Your task to perform on an android device: turn pop-ups off in chrome Image 0: 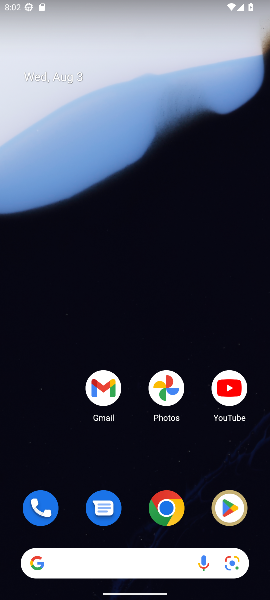
Step 0: click (171, 518)
Your task to perform on an android device: turn pop-ups off in chrome Image 1: 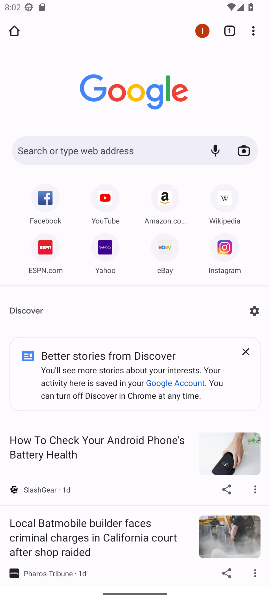
Step 1: click (253, 33)
Your task to perform on an android device: turn pop-ups off in chrome Image 2: 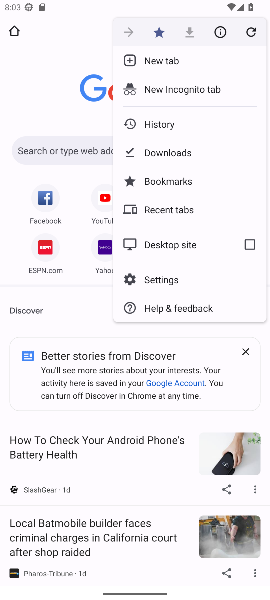
Step 2: click (162, 283)
Your task to perform on an android device: turn pop-ups off in chrome Image 3: 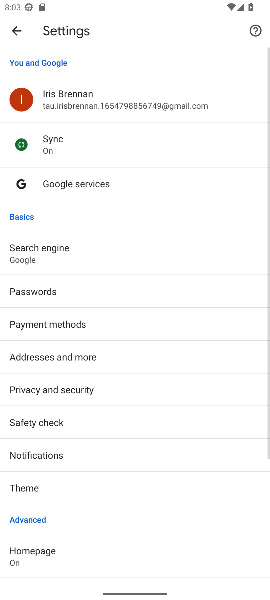
Step 3: drag from (124, 539) to (43, 124)
Your task to perform on an android device: turn pop-ups off in chrome Image 4: 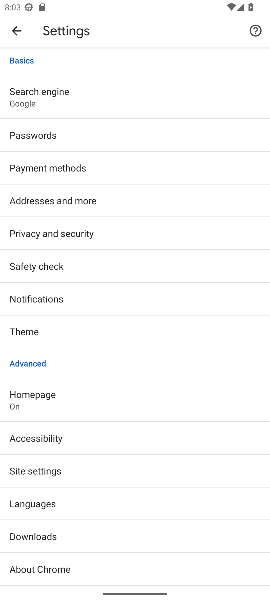
Step 4: click (46, 481)
Your task to perform on an android device: turn pop-ups off in chrome Image 5: 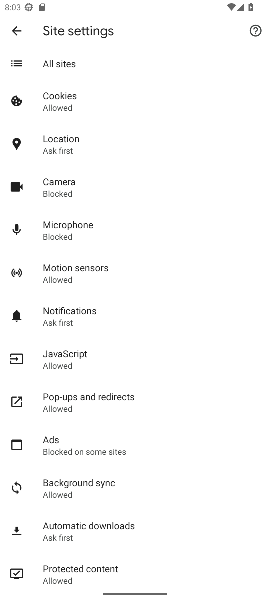
Step 5: click (50, 399)
Your task to perform on an android device: turn pop-ups off in chrome Image 6: 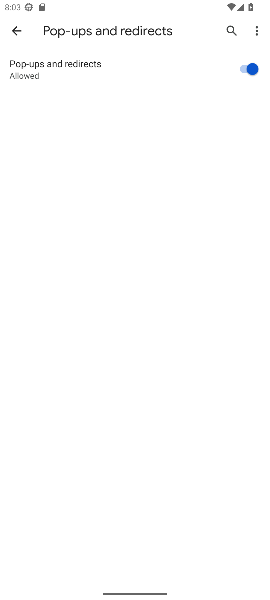
Step 6: click (239, 62)
Your task to perform on an android device: turn pop-ups off in chrome Image 7: 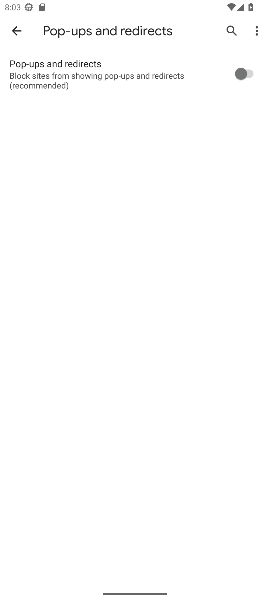
Step 7: task complete